Your task to perform on an android device: Check the news Image 0: 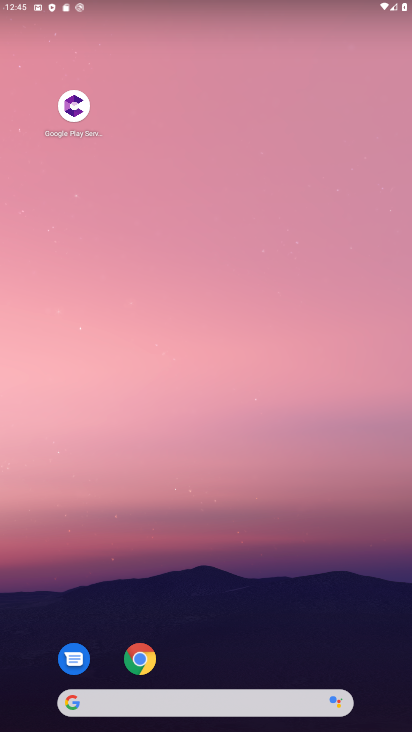
Step 0: click (198, 697)
Your task to perform on an android device: Check the news Image 1: 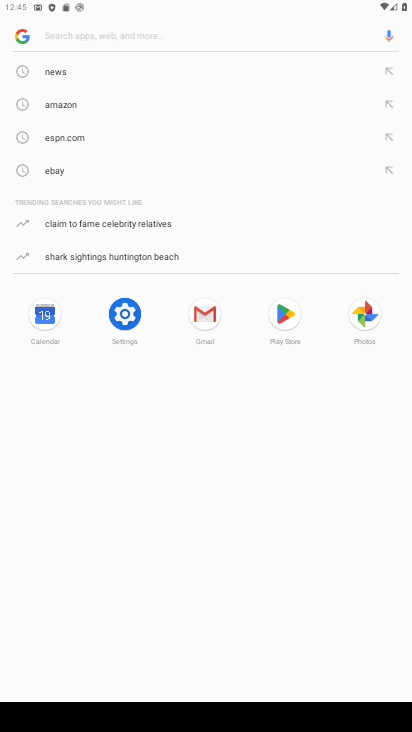
Step 1: type "news"
Your task to perform on an android device: Check the news Image 2: 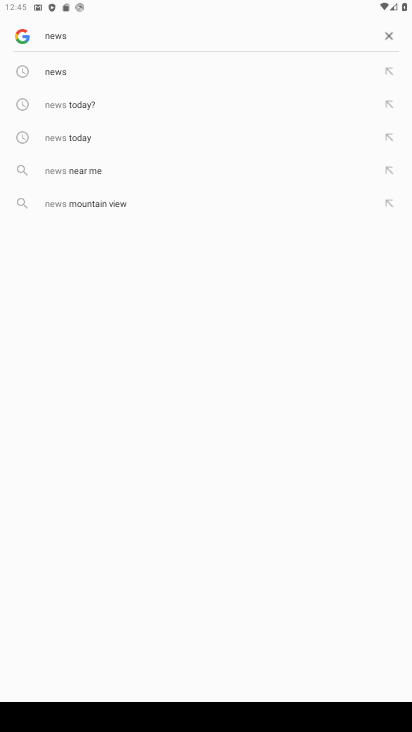
Step 2: click (67, 66)
Your task to perform on an android device: Check the news Image 3: 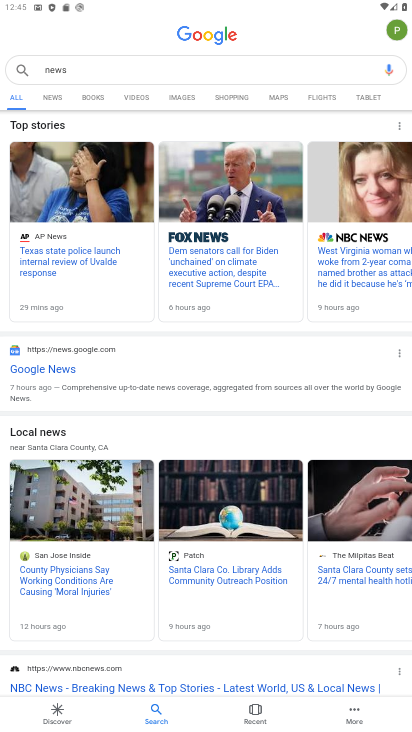
Step 3: task complete